Your task to perform on an android device: change the upload size in google photos Image 0: 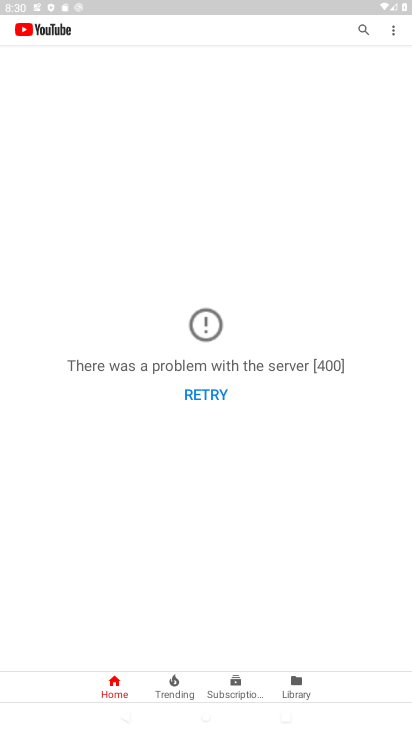
Step 0: press back button
Your task to perform on an android device: change the upload size in google photos Image 1: 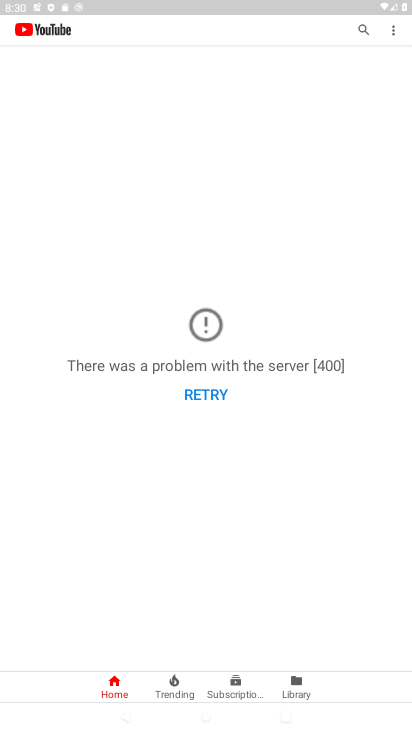
Step 1: press back button
Your task to perform on an android device: change the upload size in google photos Image 2: 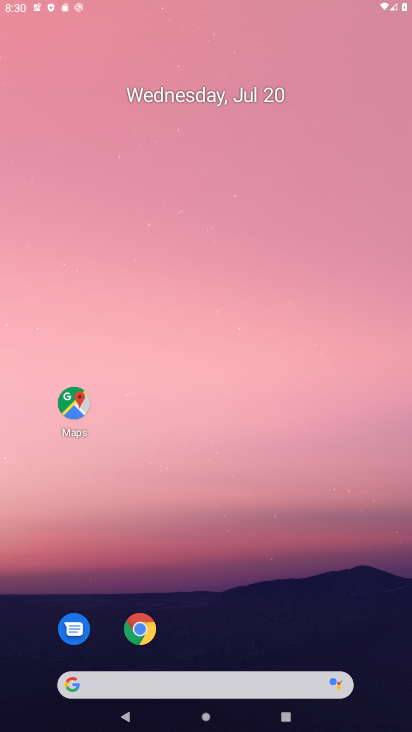
Step 2: press back button
Your task to perform on an android device: change the upload size in google photos Image 3: 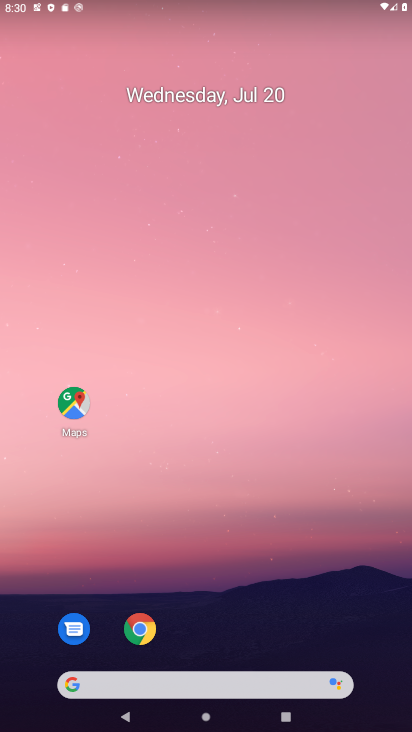
Step 3: drag from (248, 718) to (218, 208)
Your task to perform on an android device: change the upload size in google photos Image 4: 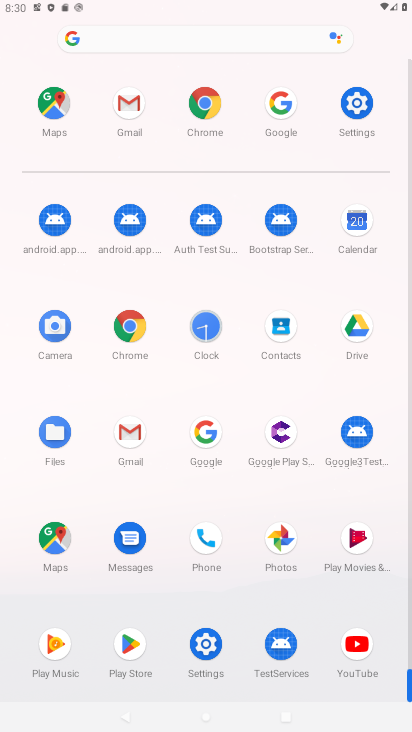
Step 4: click (272, 545)
Your task to perform on an android device: change the upload size in google photos Image 5: 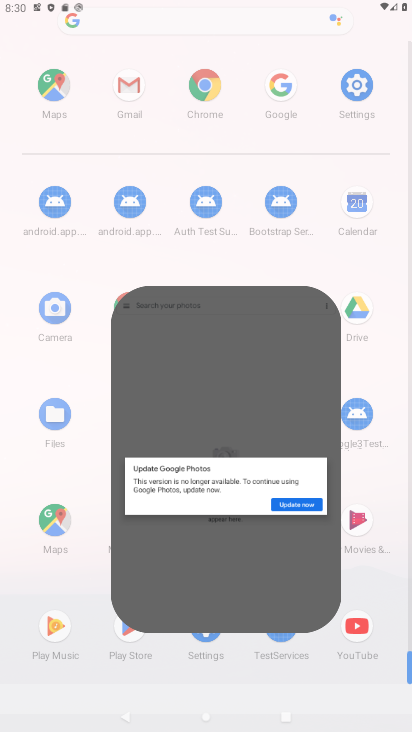
Step 5: click (276, 542)
Your task to perform on an android device: change the upload size in google photos Image 6: 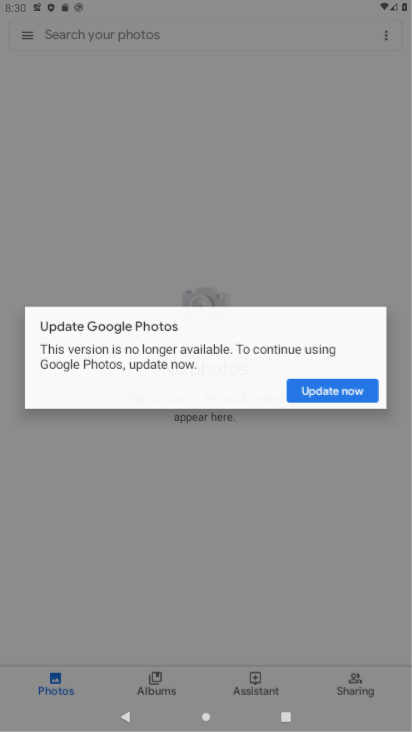
Step 6: click (277, 543)
Your task to perform on an android device: change the upload size in google photos Image 7: 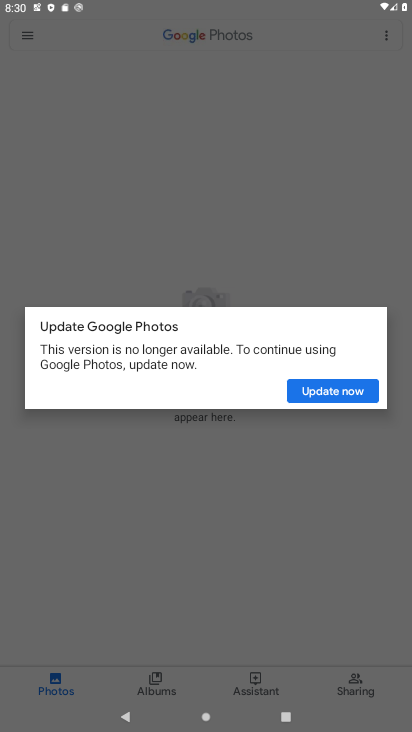
Step 7: click (295, 153)
Your task to perform on an android device: change the upload size in google photos Image 8: 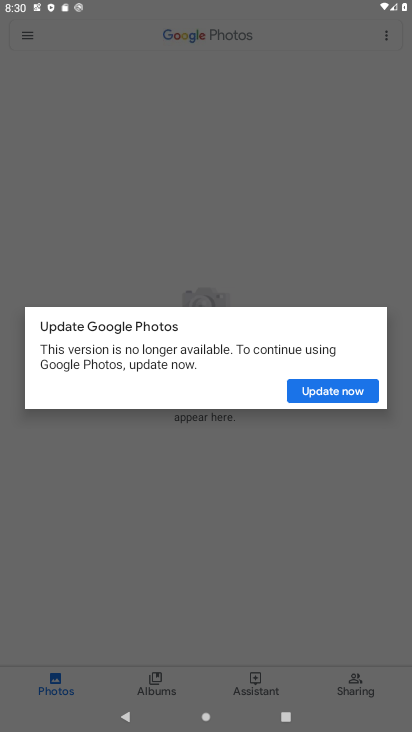
Step 8: click (295, 153)
Your task to perform on an android device: change the upload size in google photos Image 9: 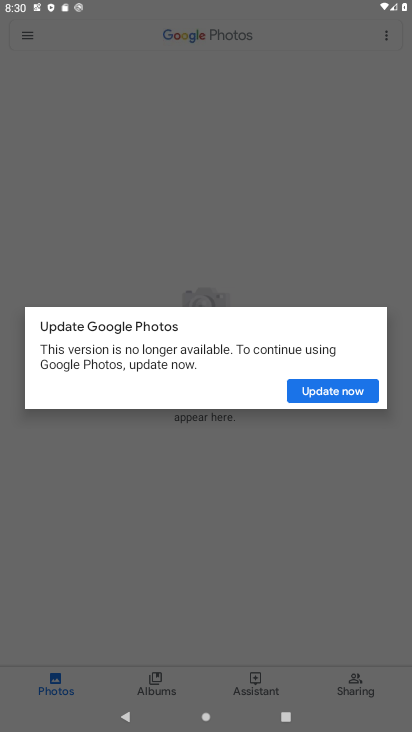
Step 9: click (295, 154)
Your task to perform on an android device: change the upload size in google photos Image 10: 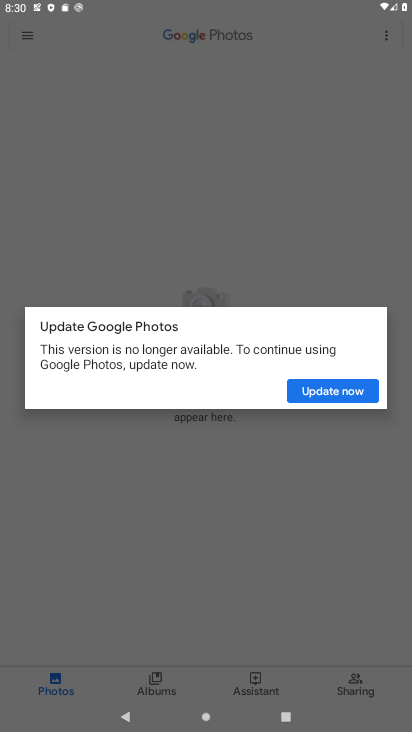
Step 10: click (295, 154)
Your task to perform on an android device: change the upload size in google photos Image 11: 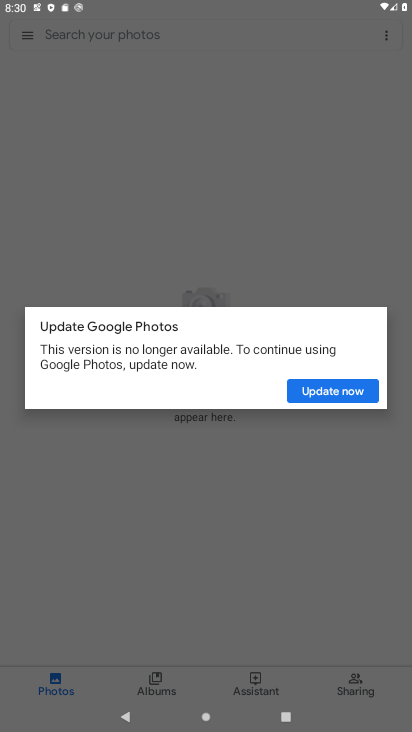
Step 11: click (305, 218)
Your task to perform on an android device: change the upload size in google photos Image 12: 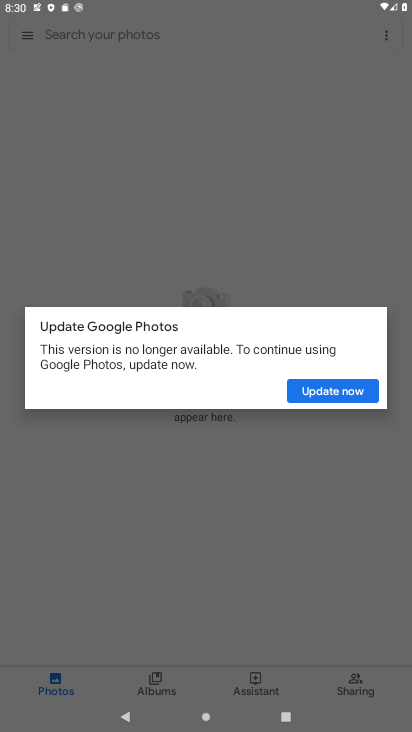
Step 12: click (225, 209)
Your task to perform on an android device: change the upload size in google photos Image 13: 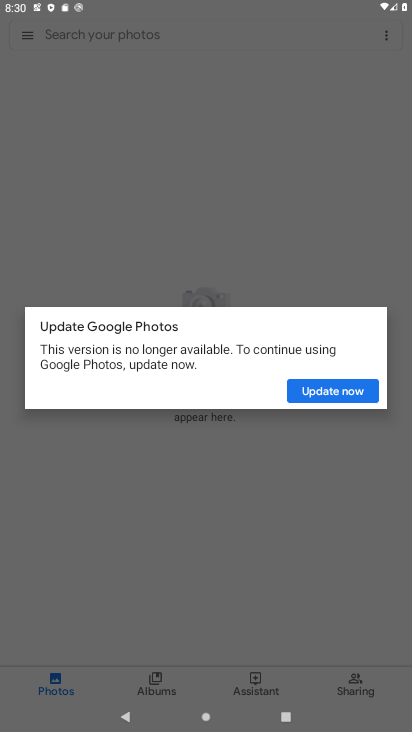
Step 13: click (244, 218)
Your task to perform on an android device: change the upload size in google photos Image 14: 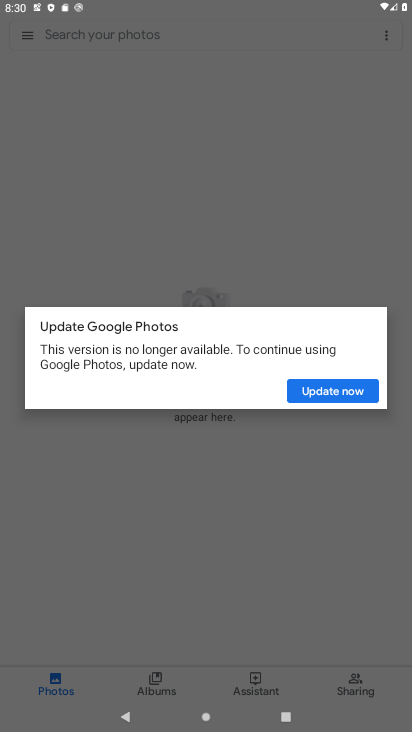
Step 14: click (245, 222)
Your task to perform on an android device: change the upload size in google photos Image 15: 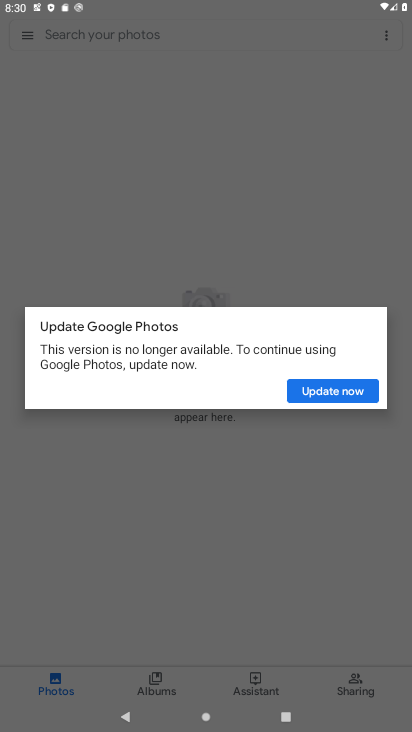
Step 15: click (256, 446)
Your task to perform on an android device: change the upload size in google photos Image 16: 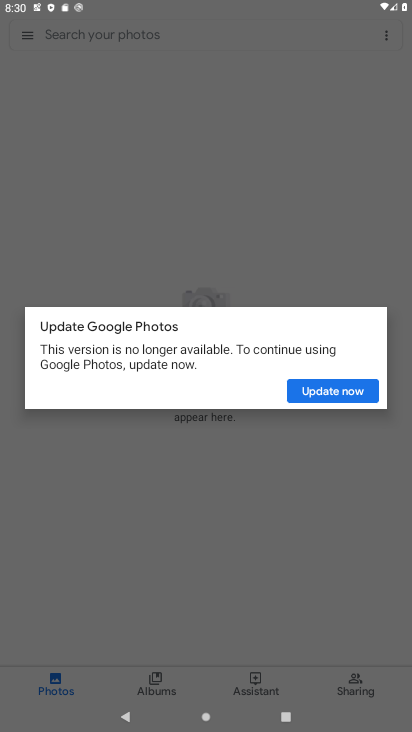
Step 16: press back button
Your task to perform on an android device: change the upload size in google photos Image 17: 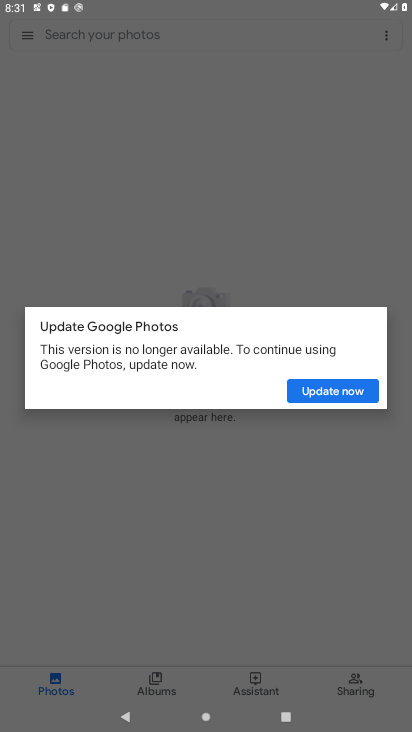
Step 17: click (266, 193)
Your task to perform on an android device: change the upload size in google photos Image 18: 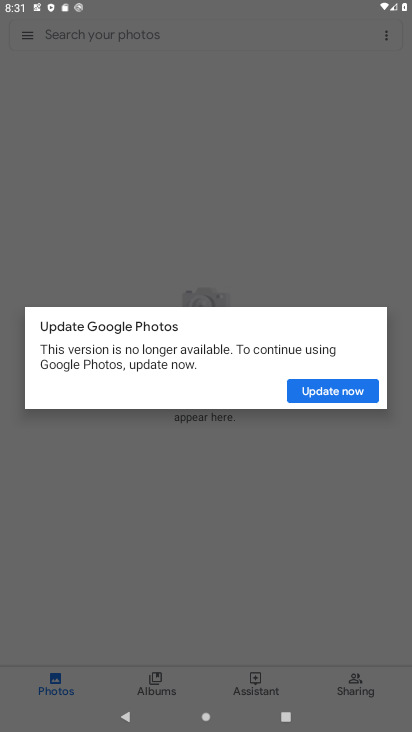
Step 18: press home button
Your task to perform on an android device: change the upload size in google photos Image 19: 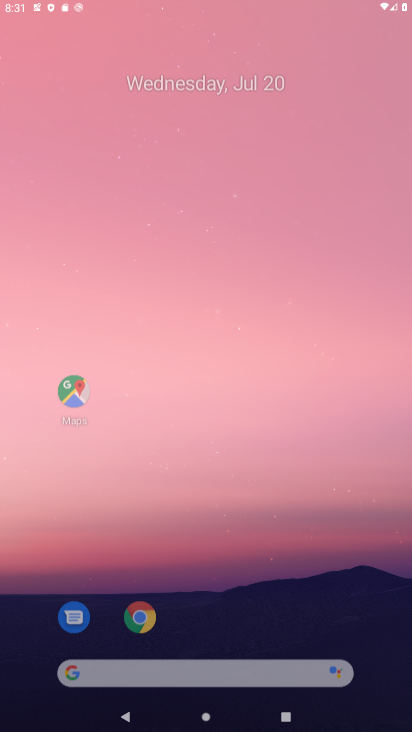
Step 19: click (148, 230)
Your task to perform on an android device: change the upload size in google photos Image 20: 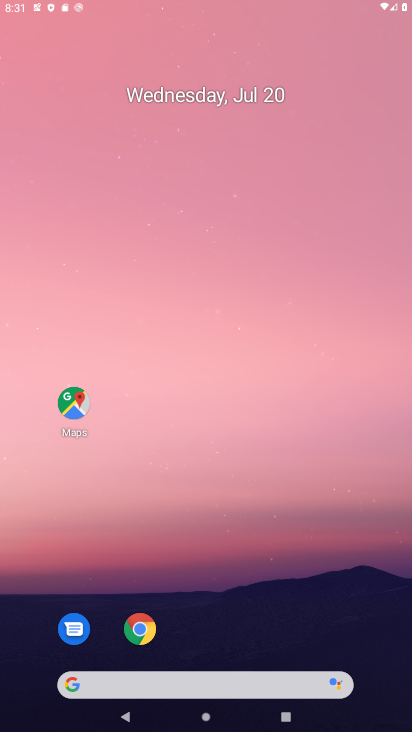
Step 20: click (150, 227)
Your task to perform on an android device: change the upload size in google photos Image 21: 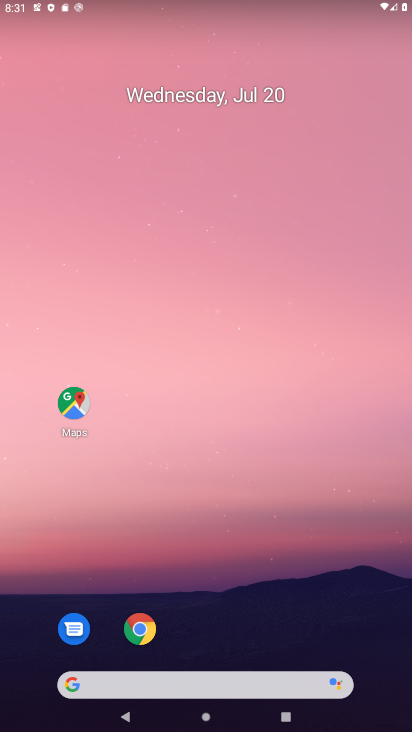
Step 21: drag from (225, 618) to (228, 16)
Your task to perform on an android device: change the upload size in google photos Image 22: 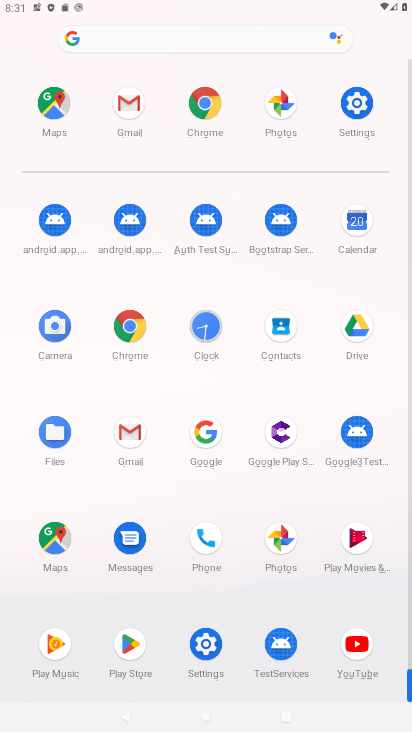
Step 22: click (196, 433)
Your task to perform on an android device: change the upload size in google photos Image 23: 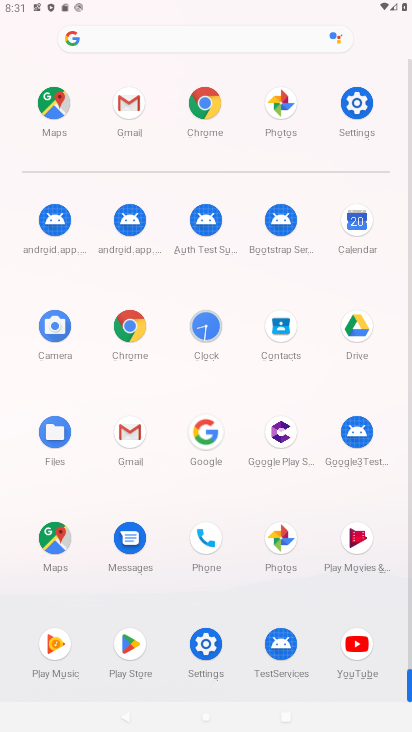
Step 23: click (198, 431)
Your task to perform on an android device: change the upload size in google photos Image 24: 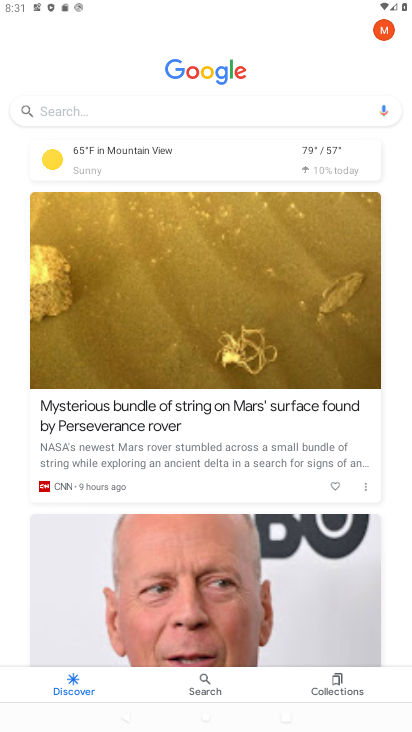
Step 24: press back button
Your task to perform on an android device: change the upload size in google photos Image 25: 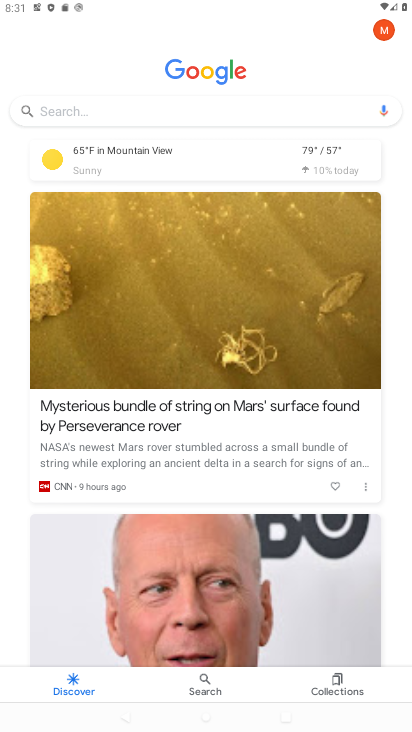
Step 25: press back button
Your task to perform on an android device: change the upload size in google photos Image 26: 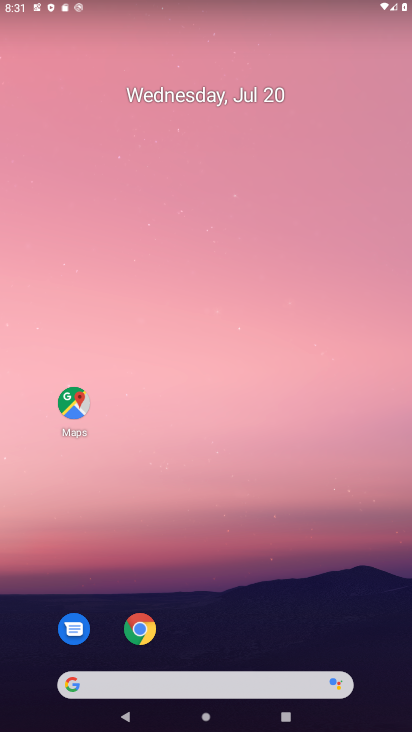
Step 26: drag from (266, 481) to (266, 136)
Your task to perform on an android device: change the upload size in google photos Image 27: 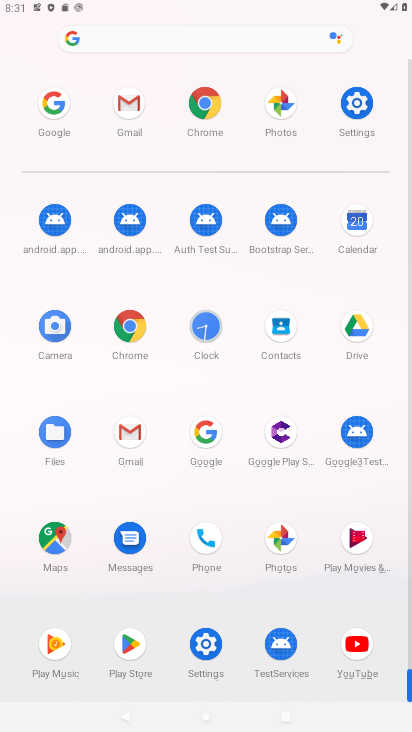
Step 27: click (275, 532)
Your task to perform on an android device: change the upload size in google photos Image 28: 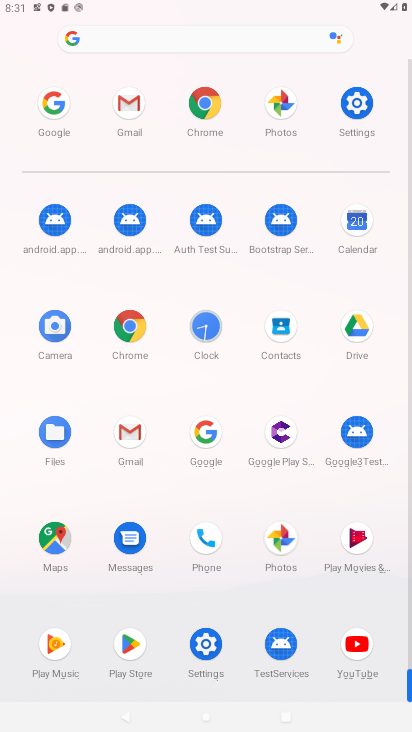
Step 28: click (276, 532)
Your task to perform on an android device: change the upload size in google photos Image 29: 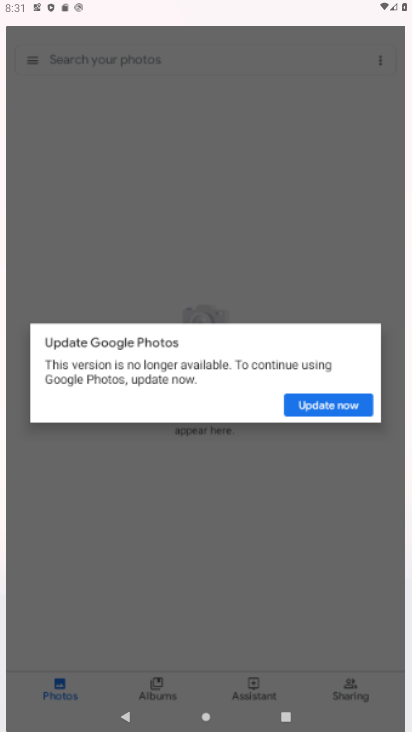
Step 29: click (276, 527)
Your task to perform on an android device: change the upload size in google photos Image 30: 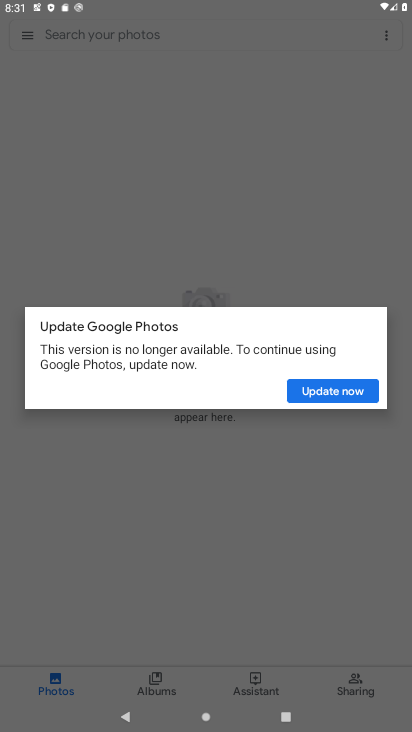
Step 30: click (204, 198)
Your task to perform on an android device: change the upload size in google photos Image 31: 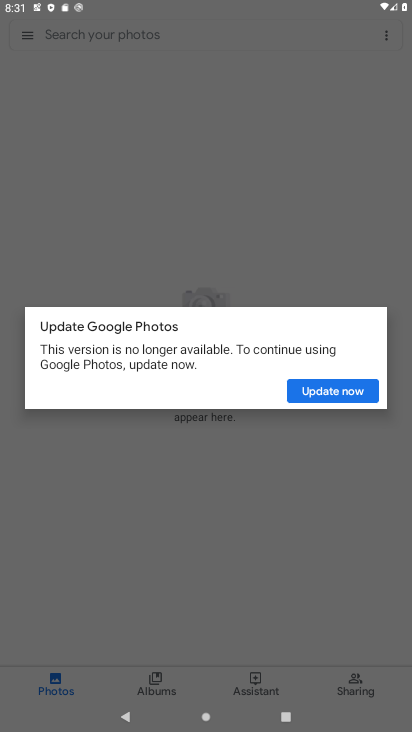
Step 31: press back button
Your task to perform on an android device: change the upload size in google photos Image 32: 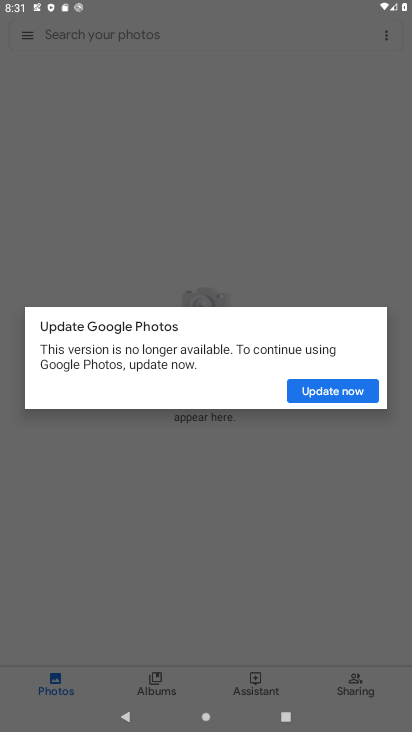
Step 32: press home button
Your task to perform on an android device: change the upload size in google photos Image 33: 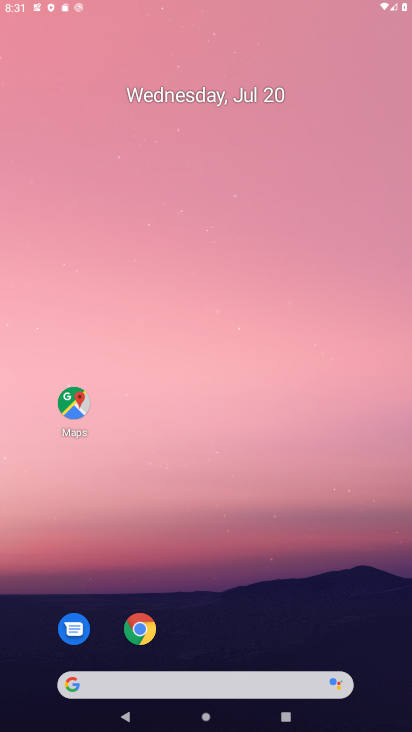
Step 33: click (236, 200)
Your task to perform on an android device: change the upload size in google photos Image 34: 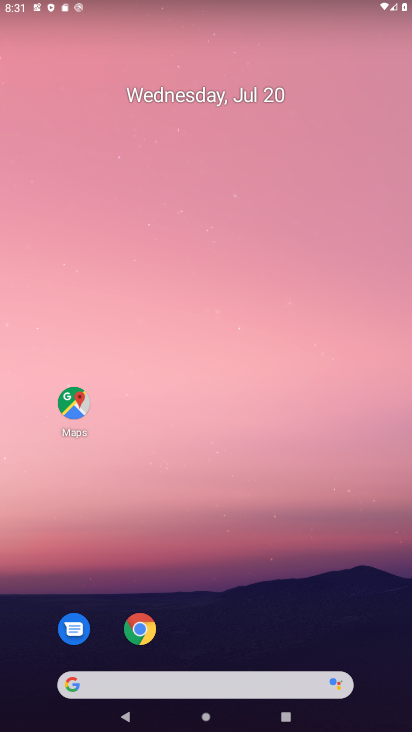
Step 34: drag from (255, 607) to (207, 261)
Your task to perform on an android device: change the upload size in google photos Image 35: 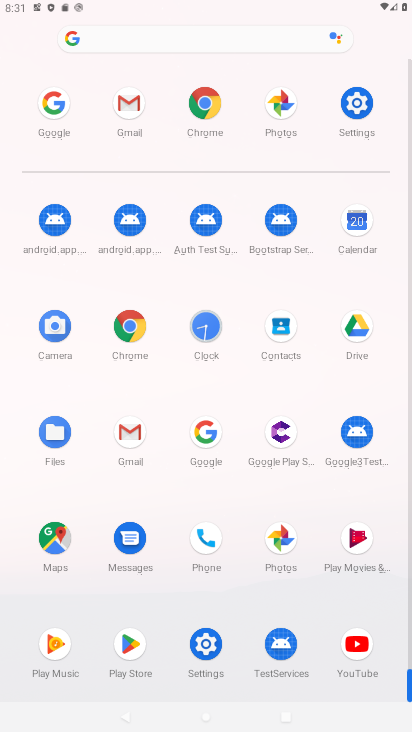
Step 35: click (279, 537)
Your task to perform on an android device: change the upload size in google photos Image 36: 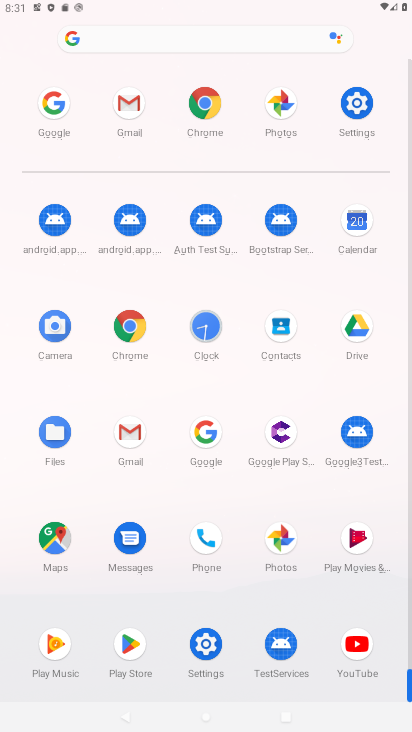
Step 36: click (286, 532)
Your task to perform on an android device: change the upload size in google photos Image 37: 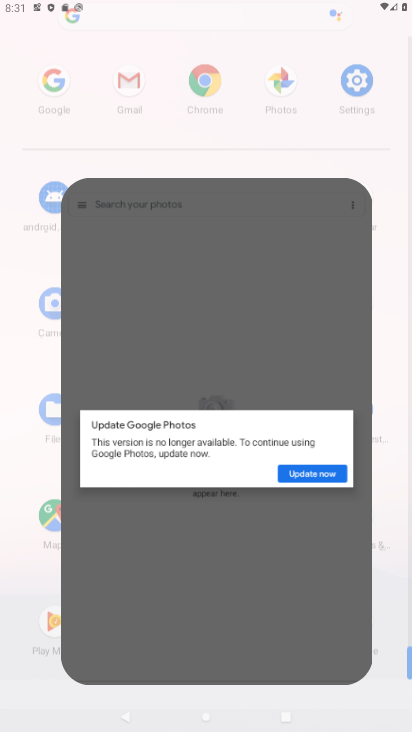
Step 37: click (287, 531)
Your task to perform on an android device: change the upload size in google photos Image 38: 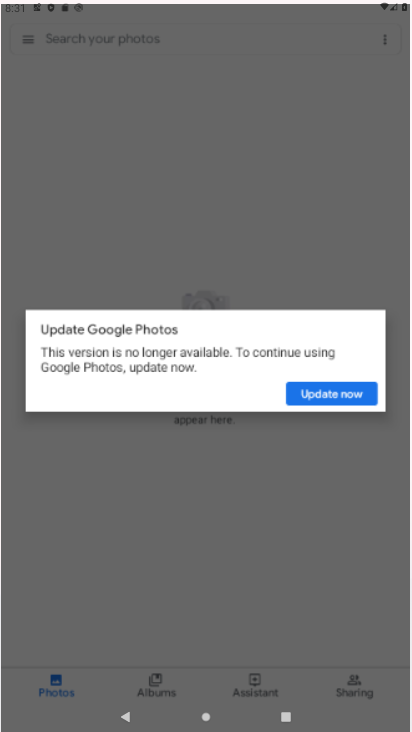
Step 38: click (287, 531)
Your task to perform on an android device: change the upload size in google photos Image 39: 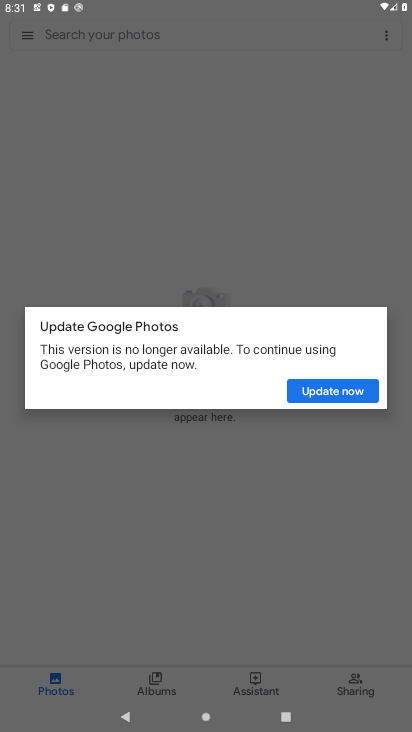
Step 39: click (249, 241)
Your task to perform on an android device: change the upload size in google photos Image 40: 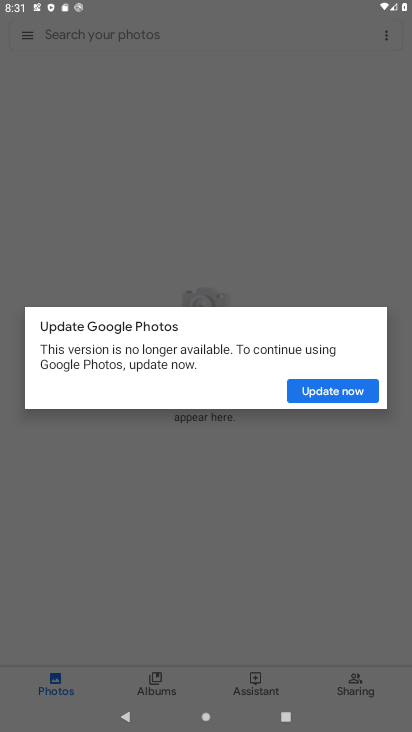
Step 40: click (251, 238)
Your task to perform on an android device: change the upload size in google photos Image 41: 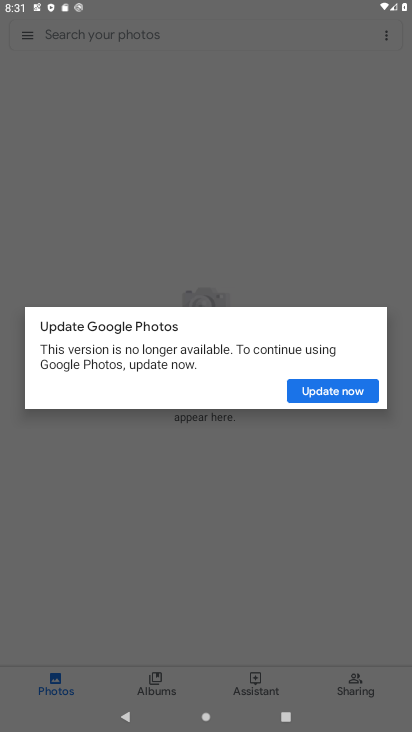
Step 41: click (269, 247)
Your task to perform on an android device: change the upload size in google photos Image 42: 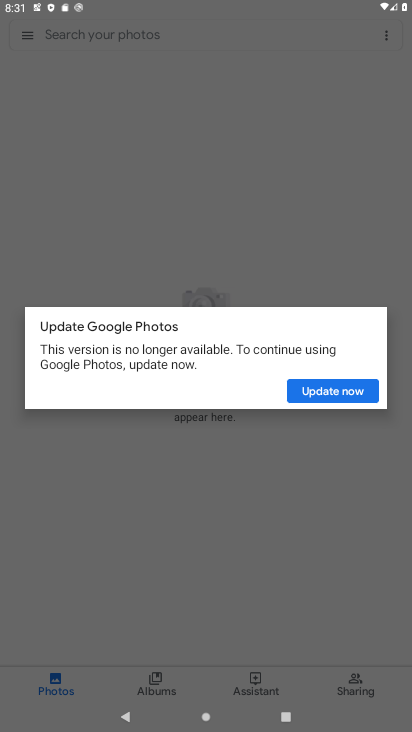
Step 42: click (271, 247)
Your task to perform on an android device: change the upload size in google photos Image 43: 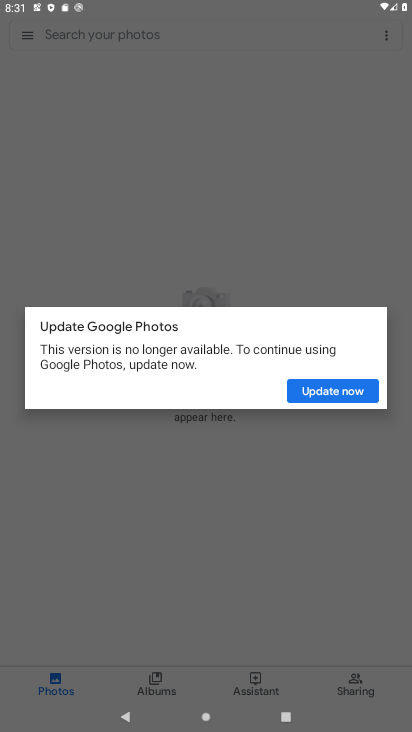
Step 43: click (272, 244)
Your task to perform on an android device: change the upload size in google photos Image 44: 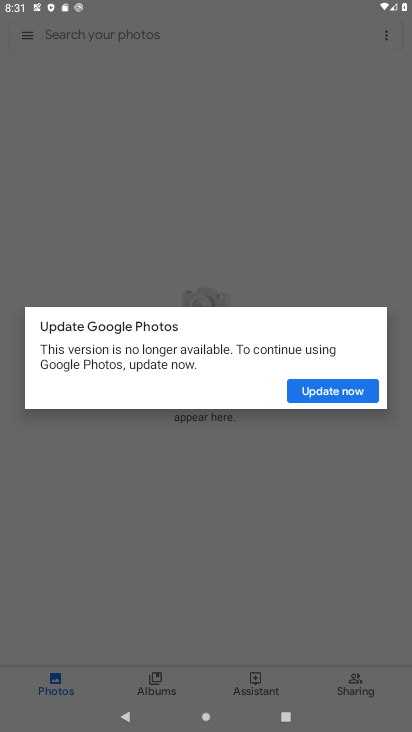
Step 44: click (342, 389)
Your task to perform on an android device: change the upload size in google photos Image 45: 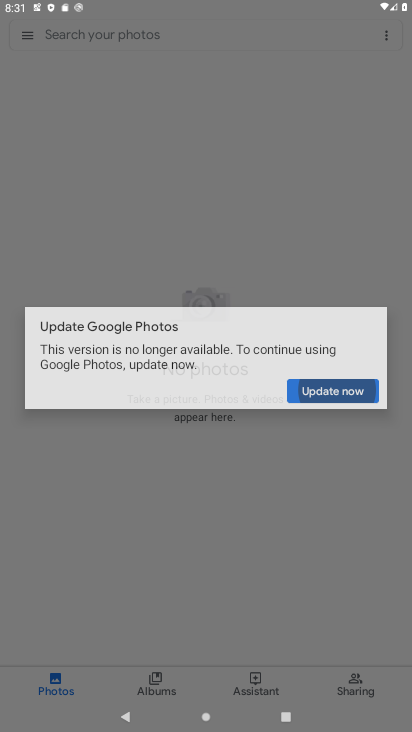
Step 45: click (343, 390)
Your task to perform on an android device: change the upload size in google photos Image 46: 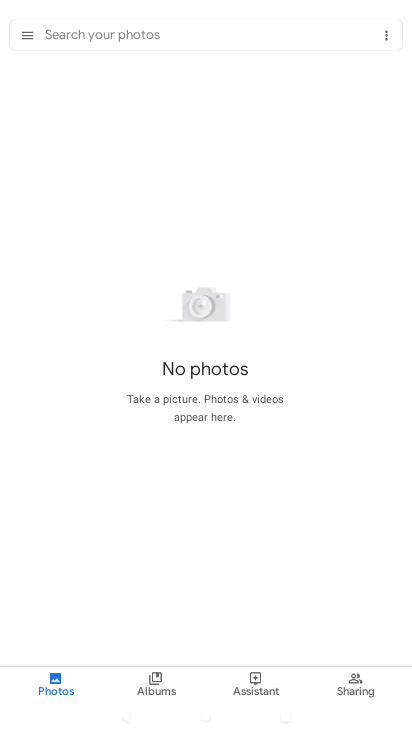
Step 46: click (344, 393)
Your task to perform on an android device: change the upload size in google photos Image 47: 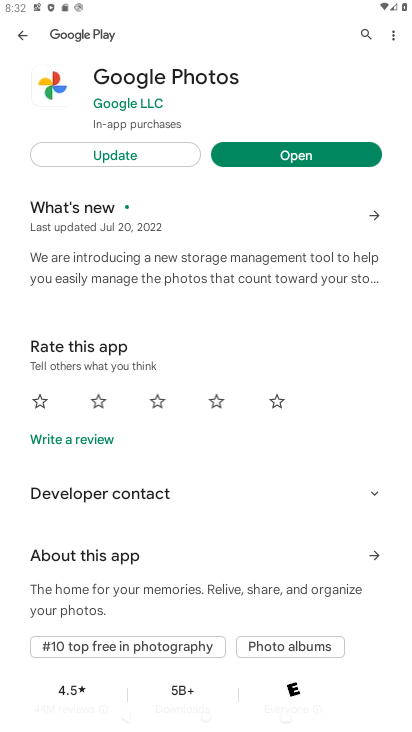
Step 47: click (135, 157)
Your task to perform on an android device: change the upload size in google photos Image 48: 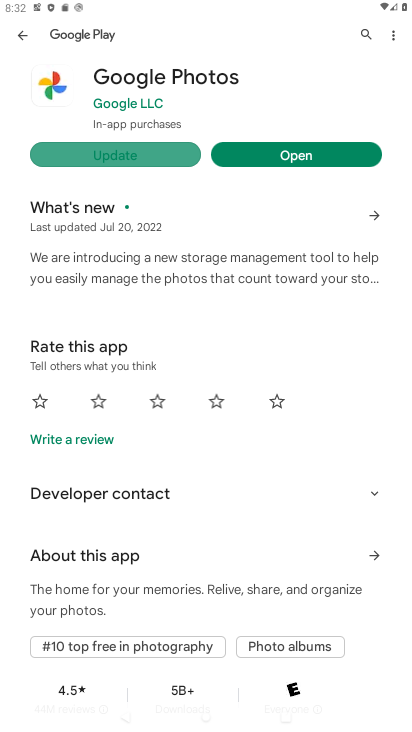
Step 48: click (138, 147)
Your task to perform on an android device: change the upload size in google photos Image 49: 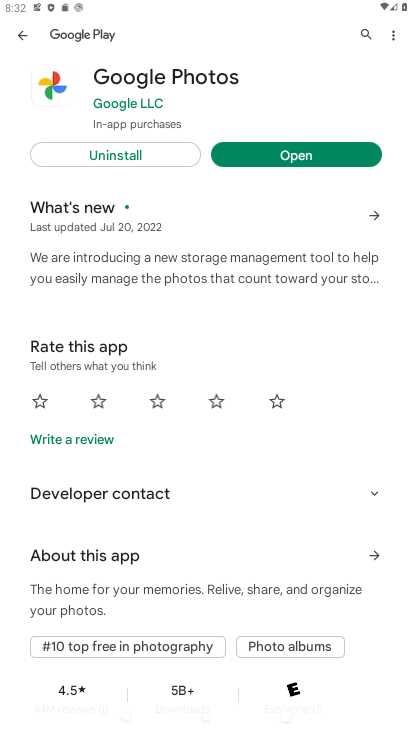
Step 49: click (293, 152)
Your task to perform on an android device: change the upload size in google photos Image 50: 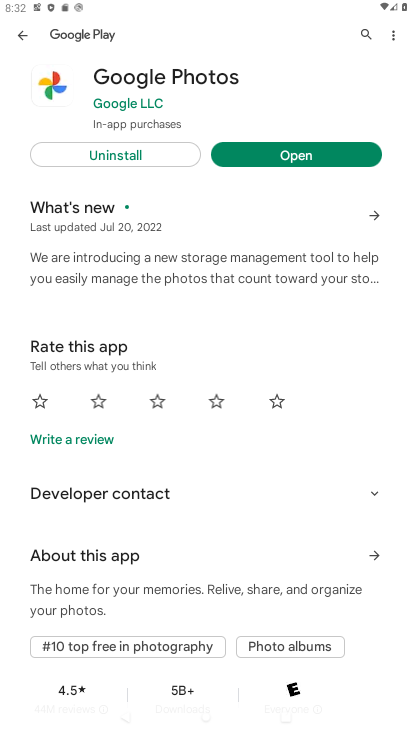
Step 50: click (315, 157)
Your task to perform on an android device: change the upload size in google photos Image 51: 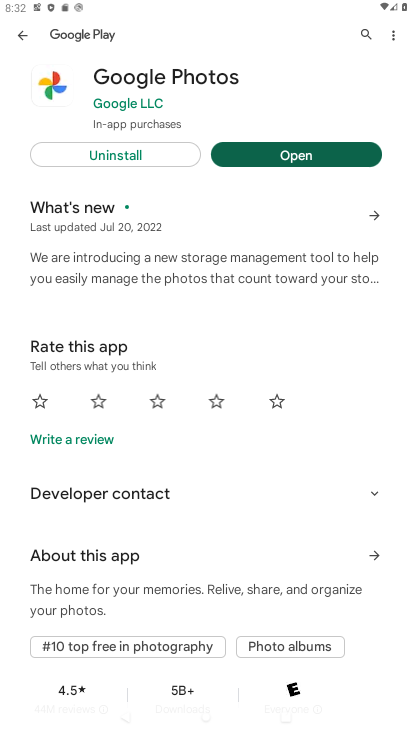
Step 51: click (319, 155)
Your task to perform on an android device: change the upload size in google photos Image 52: 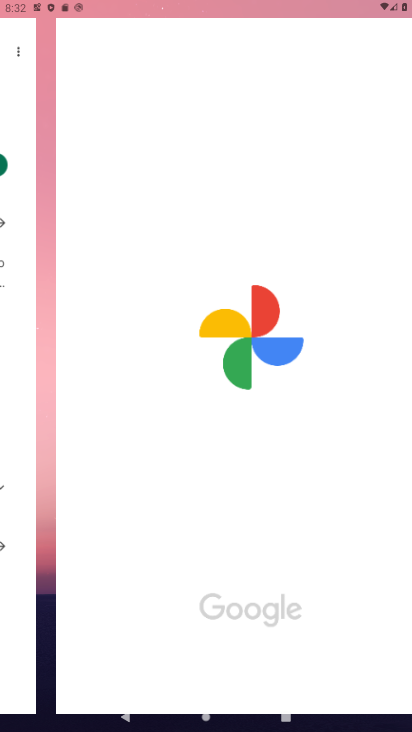
Step 52: click (327, 151)
Your task to perform on an android device: change the upload size in google photos Image 53: 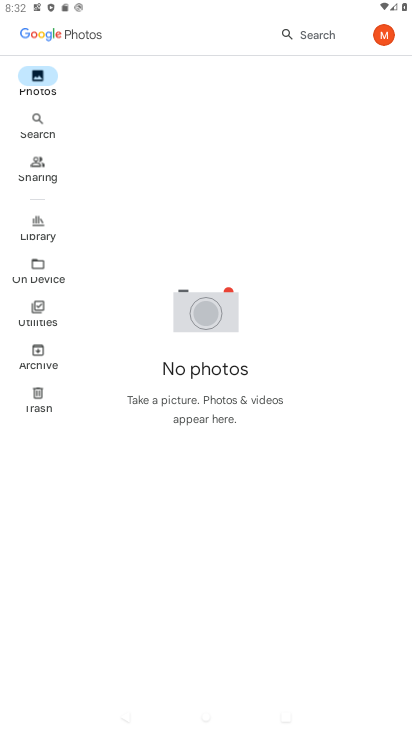
Step 53: task complete